Your task to perform on an android device: move an email to a new category in the gmail app Image 0: 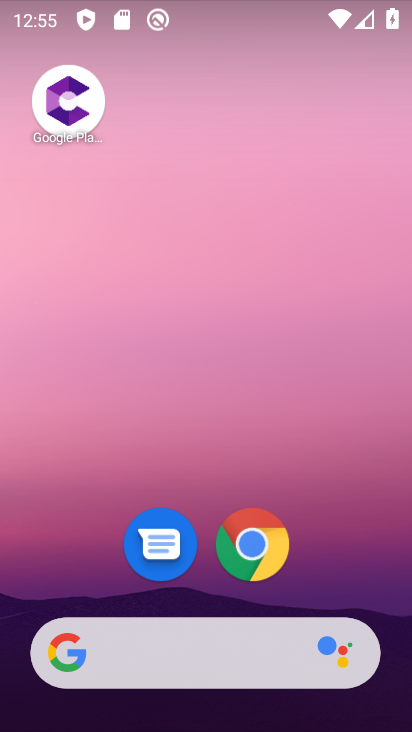
Step 0: drag from (206, 594) to (261, 178)
Your task to perform on an android device: move an email to a new category in the gmail app Image 1: 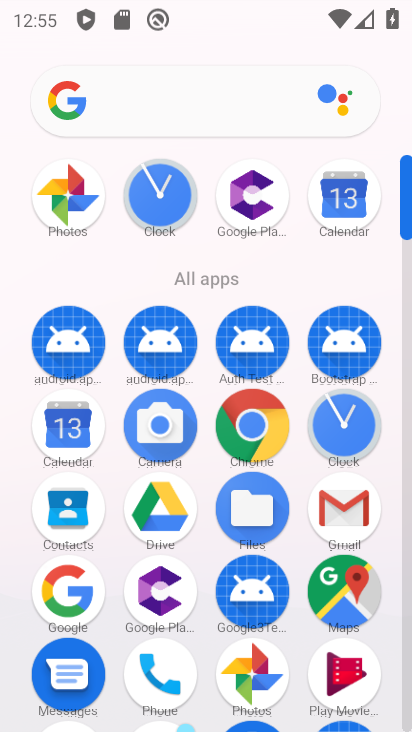
Step 1: click (356, 507)
Your task to perform on an android device: move an email to a new category in the gmail app Image 2: 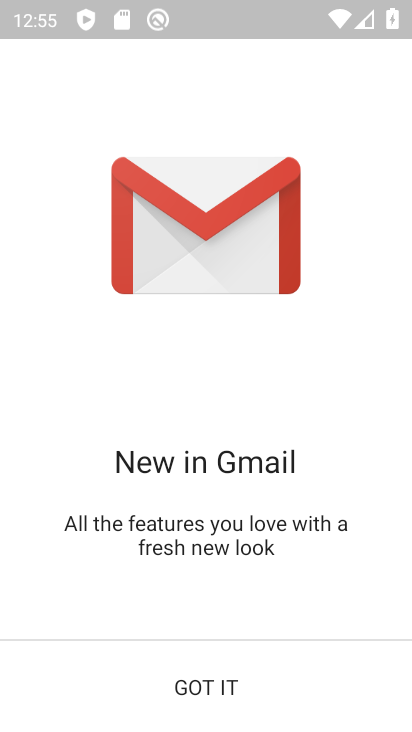
Step 2: click (197, 697)
Your task to perform on an android device: move an email to a new category in the gmail app Image 3: 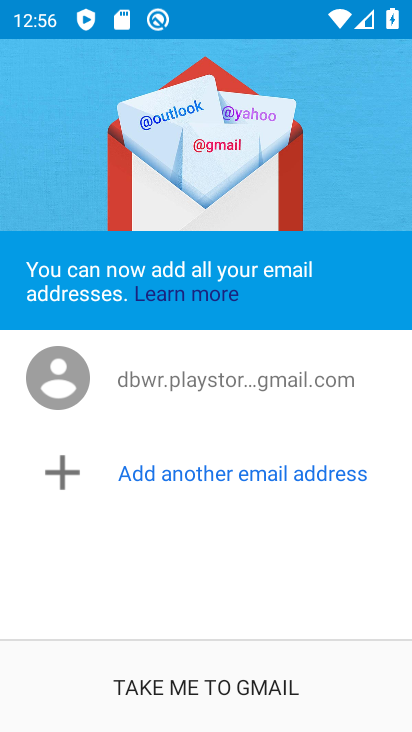
Step 3: click (213, 677)
Your task to perform on an android device: move an email to a new category in the gmail app Image 4: 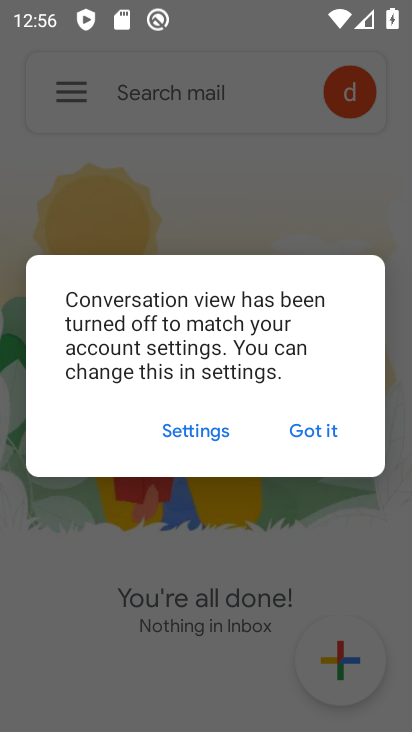
Step 4: click (322, 439)
Your task to perform on an android device: move an email to a new category in the gmail app Image 5: 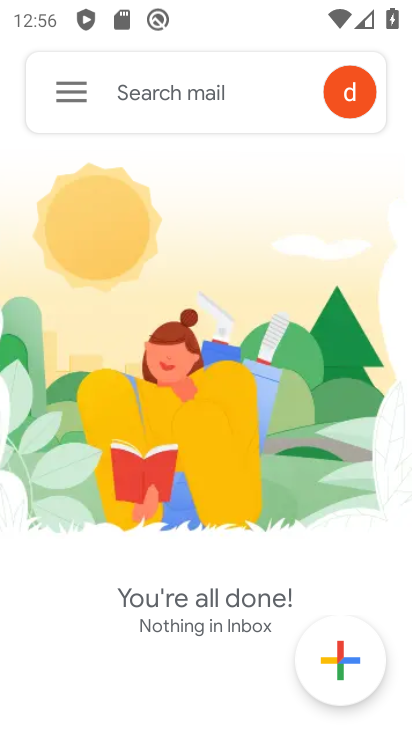
Step 5: click (62, 90)
Your task to perform on an android device: move an email to a new category in the gmail app Image 6: 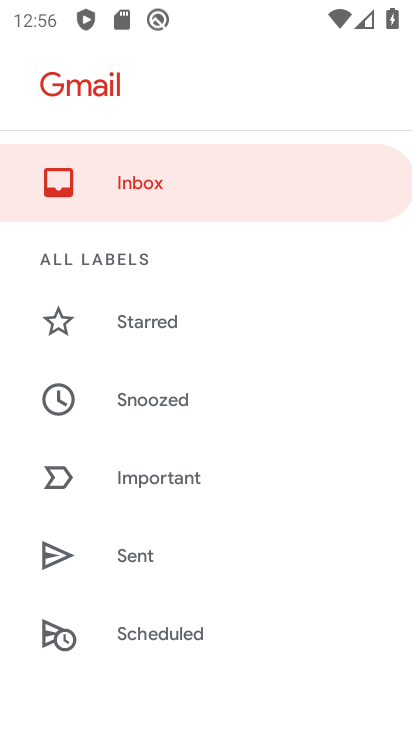
Step 6: drag from (143, 562) to (250, 207)
Your task to perform on an android device: move an email to a new category in the gmail app Image 7: 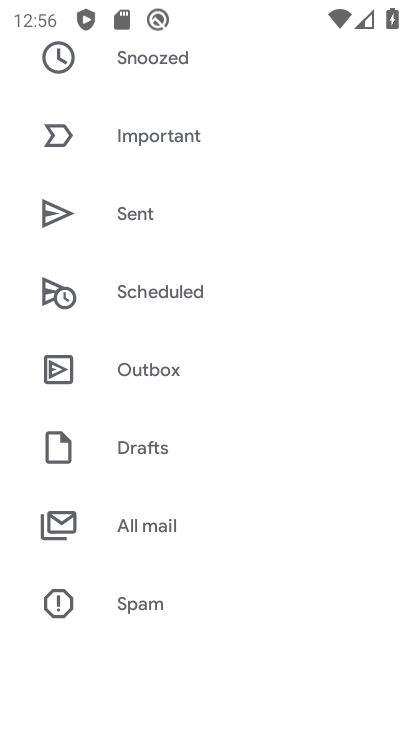
Step 7: click (151, 530)
Your task to perform on an android device: move an email to a new category in the gmail app Image 8: 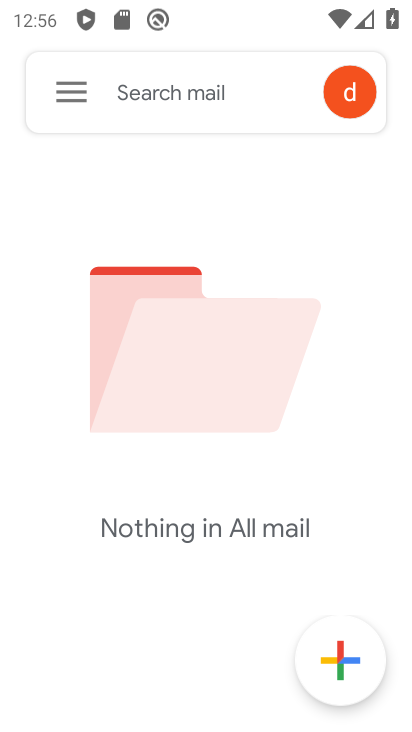
Step 8: task complete